Your task to perform on an android device: delete a single message in the gmail app Image 0: 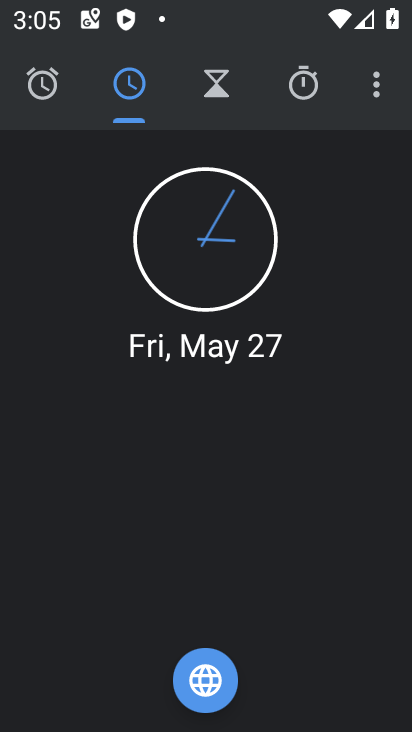
Step 0: press home button
Your task to perform on an android device: delete a single message in the gmail app Image 1: 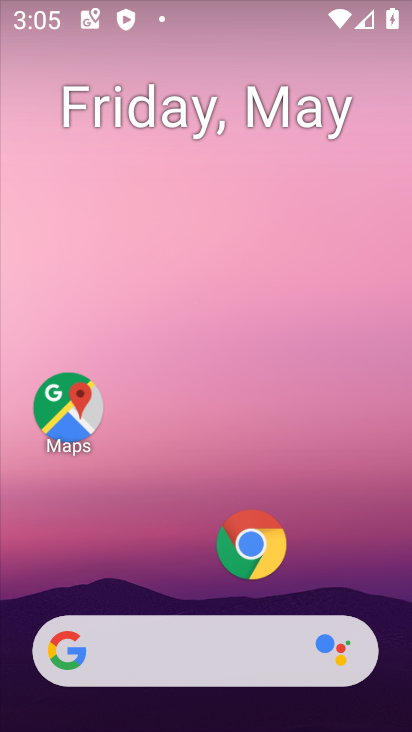
Step 1: drag from (224, 595) to (238, 190)
Your task to perform on an android device: delete a single message in the gmail app Image 2: 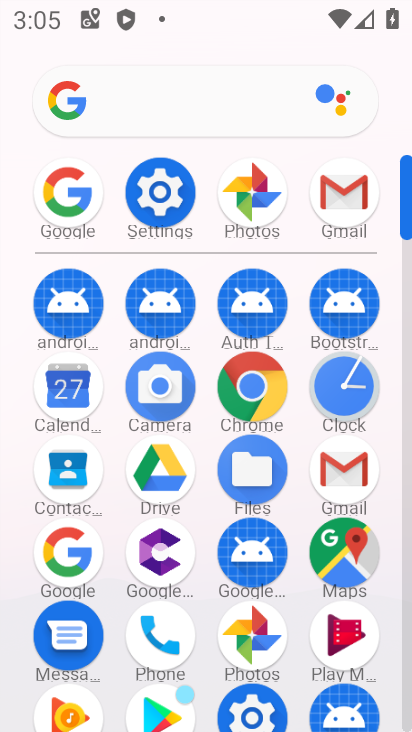
Step 2: click (338, 191)
Your task to perform on an android device: delete a single message in the gmail app Image 3: 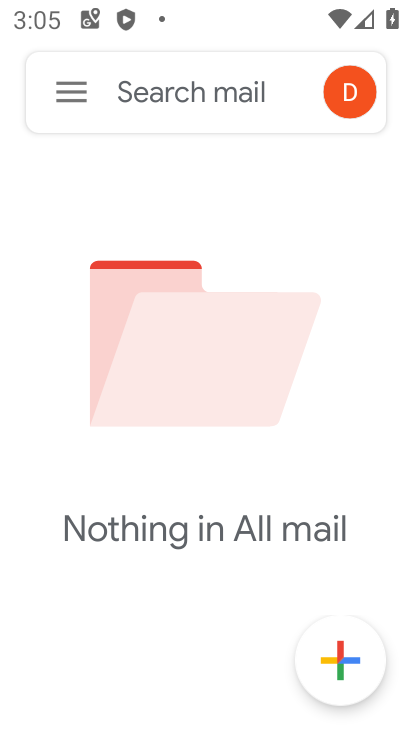
Step 3: click (81, 94)
Your task to perform on an android device: delete a single message in the gmail app Image 4: 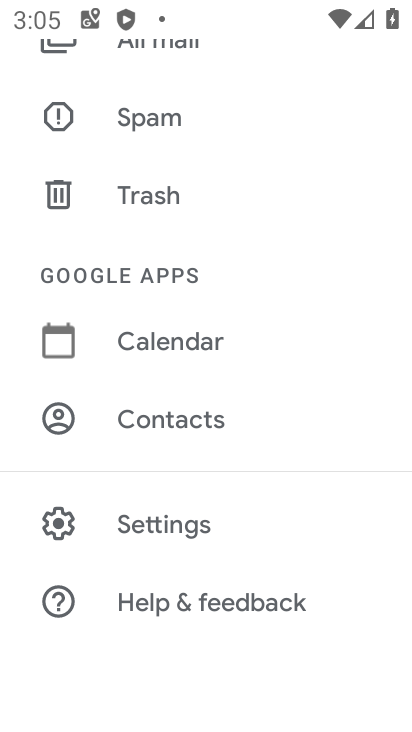
Step 4: drag from (181, 94) to (215, 346)
Your task to perform on an android device: delete a single message in the gmail app Image 5: 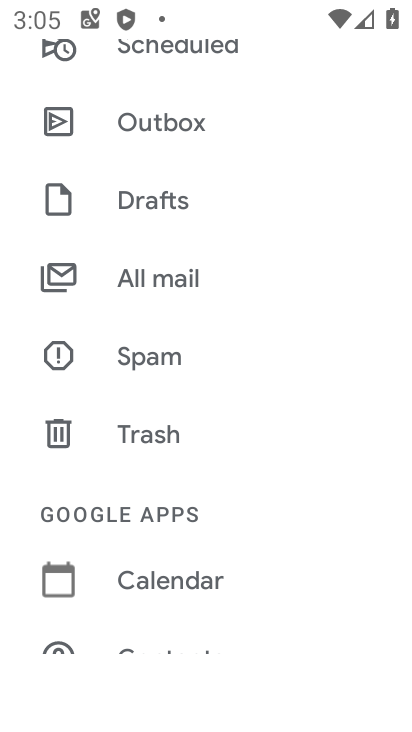
Step 5: click (190, 286)
Your task to perform on an android device: delete a single message in the gmail app Image 6: 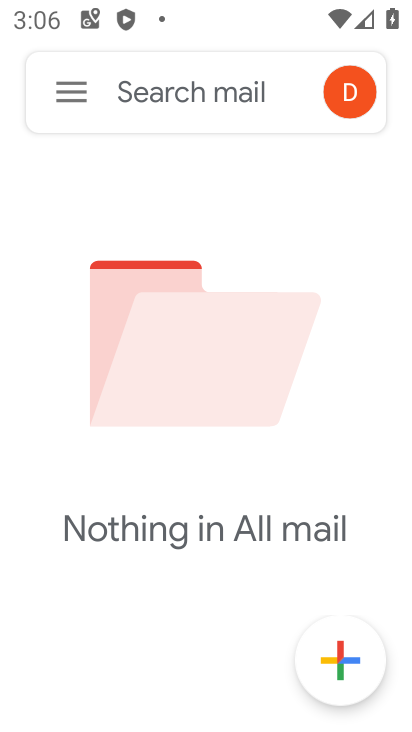
Step 6: task complete